Your task to perform on an android device: Open Reddit.com Image 0: 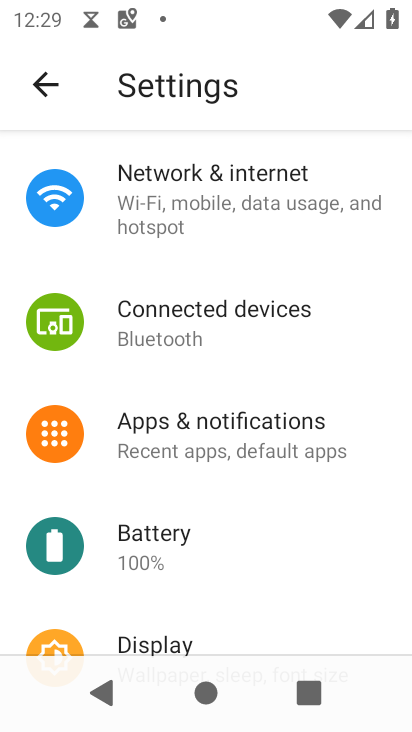
Step 0: press home button
Your task to perform on an android device: Open Reddit.com Image 1: 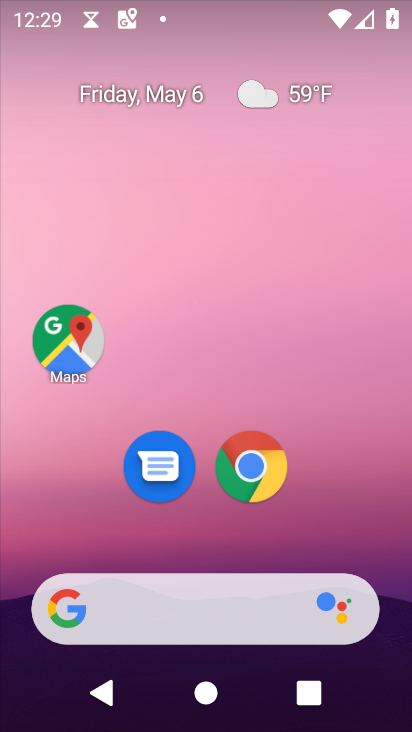
Step 1: click (260, 469)
Your task to perform on an android device: Open Reddit.com Image 2: 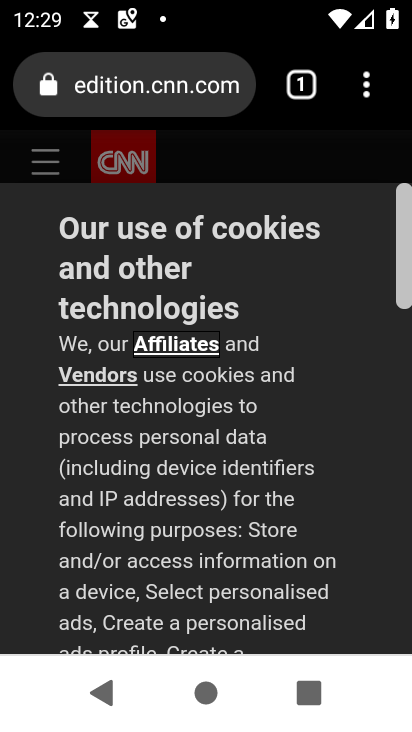
Step 2: click (133, 67)
Your task to perform on an android device: Open Reddit.com Image 3: 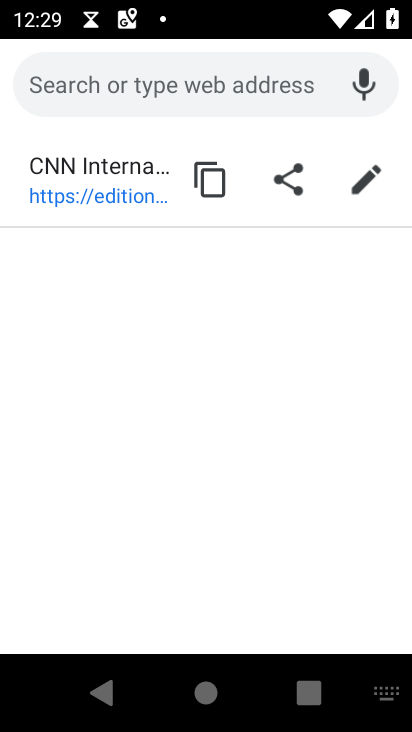
Step 3: type "Reddit.com"
Your task to perform on an android device: Open Reddit.com Image 4: 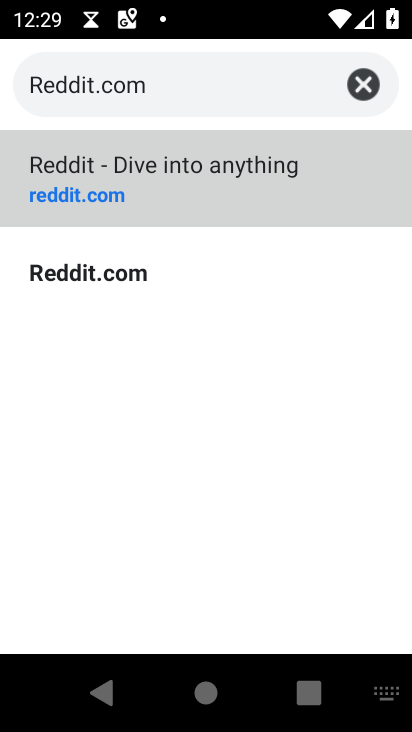
Step 4: click (76, 193)
Your task to perform on an android device: Open Reddit.com Image 5: 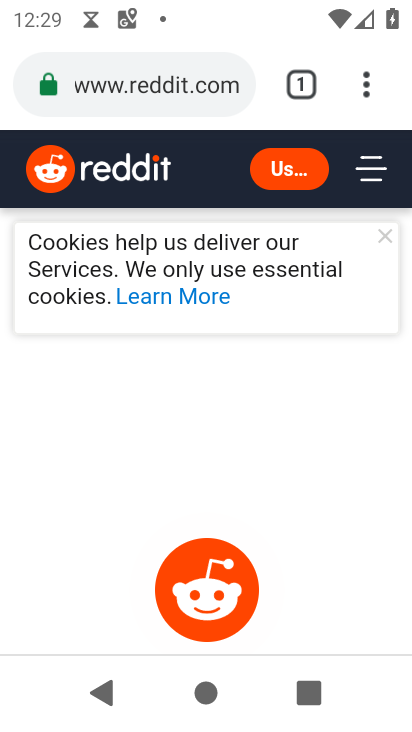
Step 5: task complete